Your task to perform on an android device: change keyboard looks Image 0: 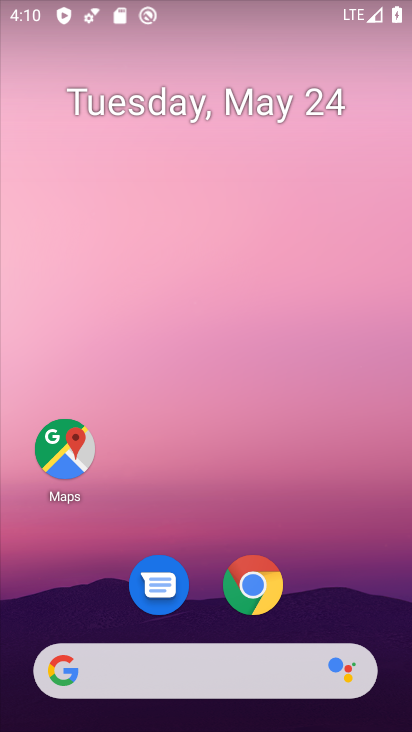
Step 0: drag from (244, 494) to (254, 0)
Your task to perform on an android device: change keyboard looks Image 1: 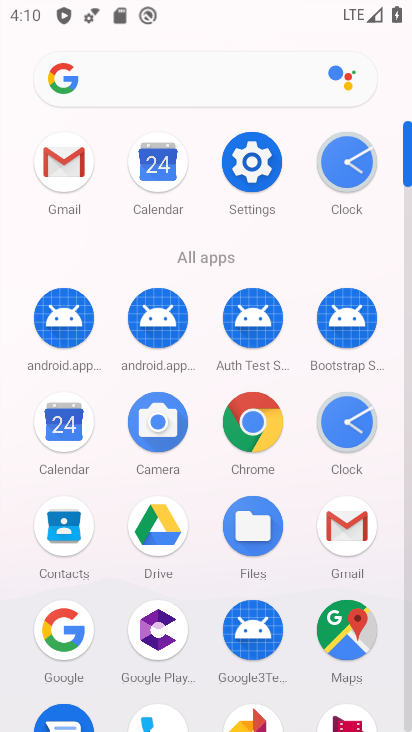
Step 1: click (253, 187)
Your task to perform on an android device: change keyboard looks Image 2: 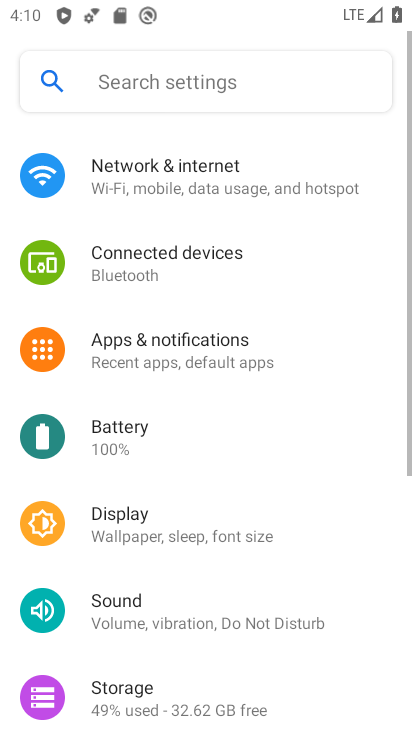
Step 2: drag from (215, 529) to (256, 57)
Your task to perform on an android device: change keyboard looks Image 3: 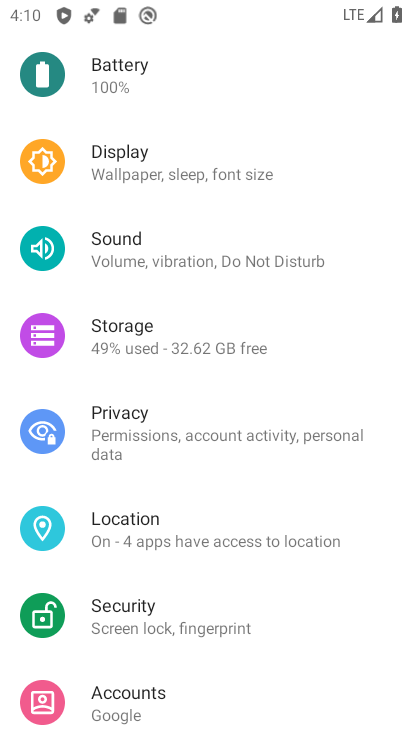
Step 3: drag from (190, 602) to (225, 188)
Your task to perform on an android device: change keyboard looks Image 4: 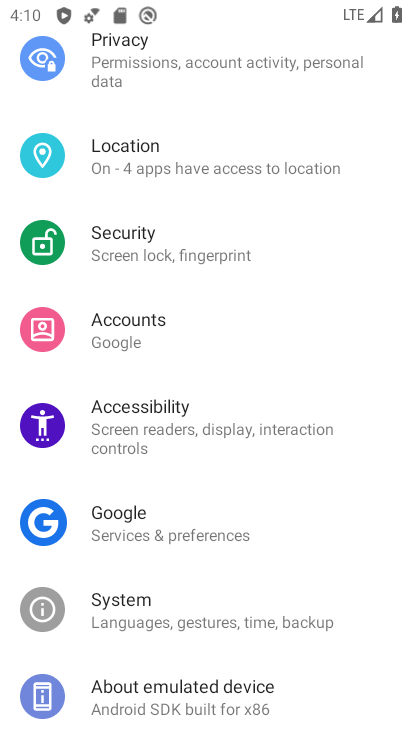
Step 4: click (115, 606)
Your task to perform on an android device: change keyboard looks Image 5: 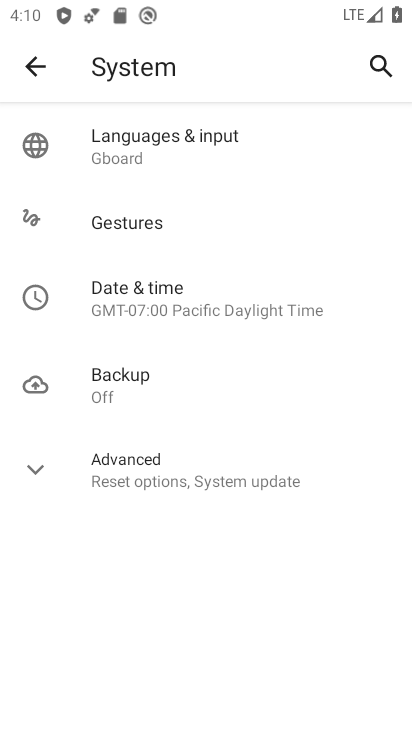
Step 5: click (193, 145)
Your task to perform on an android device: change keyboard looks Image 6: 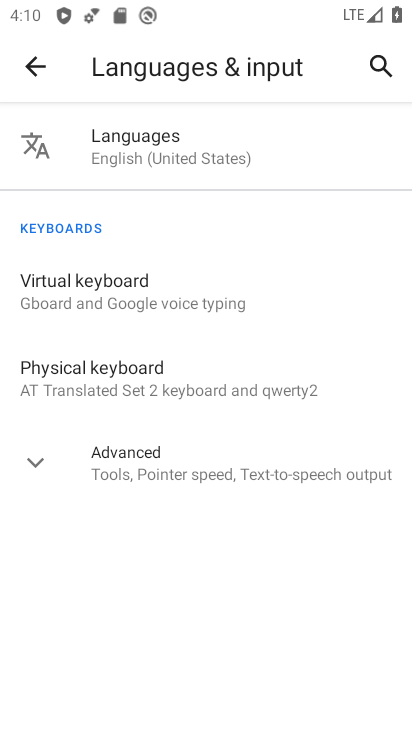
Step 6: click (135, 293)
Your task to perform on an android device: change keyboard looks Image 7: 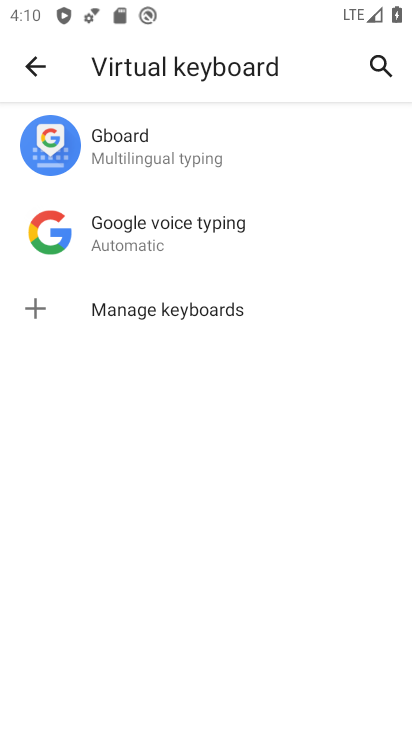
Step 7: click (173, 158)
Your task to perform on an android device: change keyboard looks Image 8: 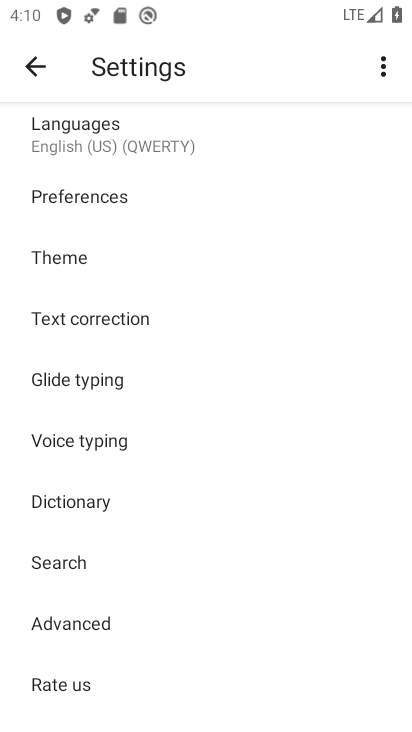
Step 8: click (89, 258)
Your task to perform on an android device: change keyboard looks Image 9: 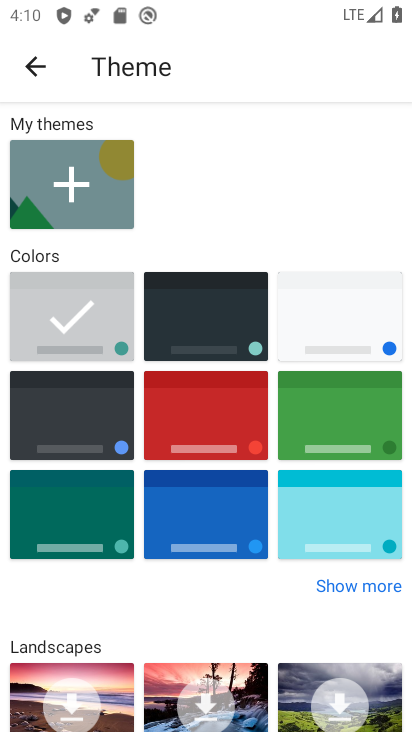
Step 9: click (206, 415)
Your task to perform on an android device: change keyboard looks Image 10: 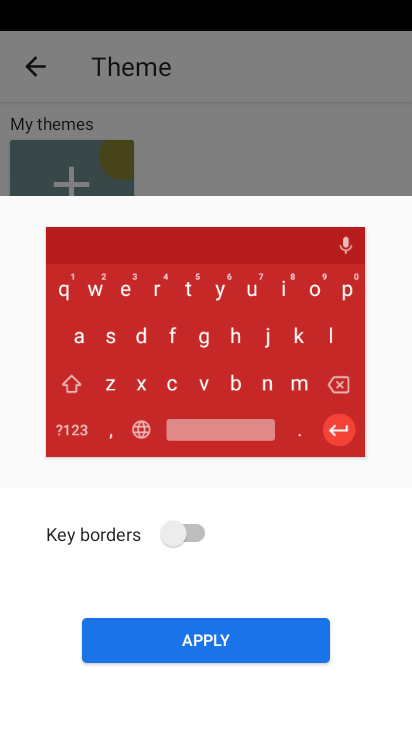
Step 10: click (189, 531)
Your task to perform on an android device: change keyboard looks Image 11: 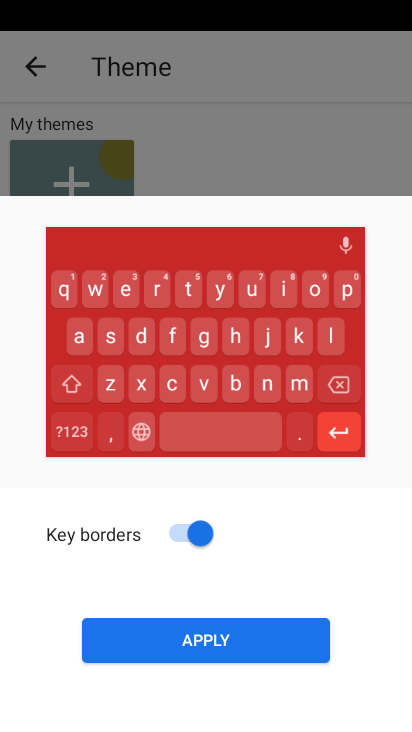
Step 11: click (204, 647)
Your task to perform on an android device: change keyboard looks Image 12: 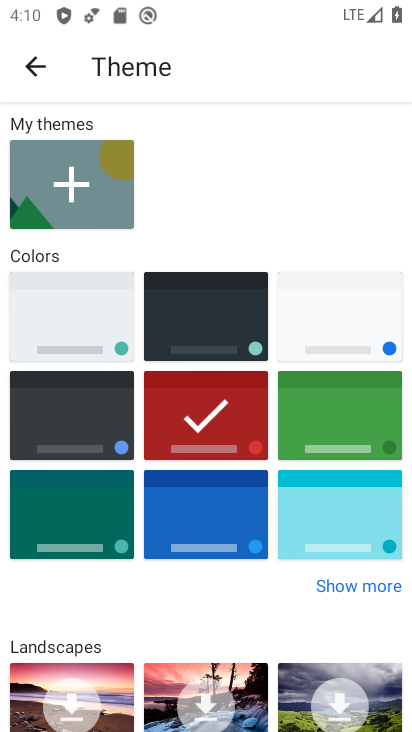
Step 12: task complete